Your task to perform on an android device: stop showing notifications on the lock screen Image 0: 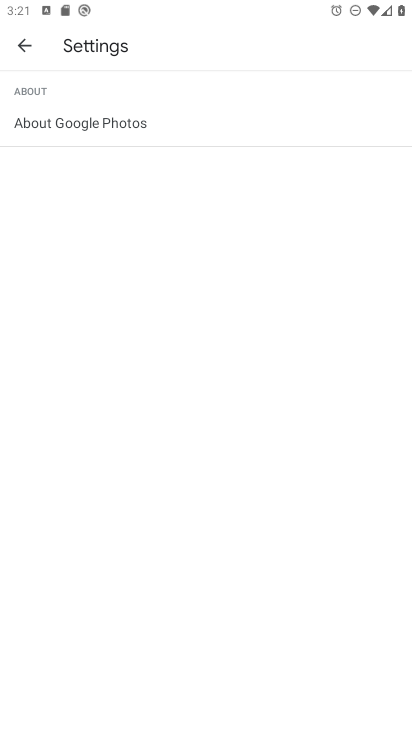
Step 0: press home button
Your task to perform on an android device: stop showing notifications on the lock screen Image 1: 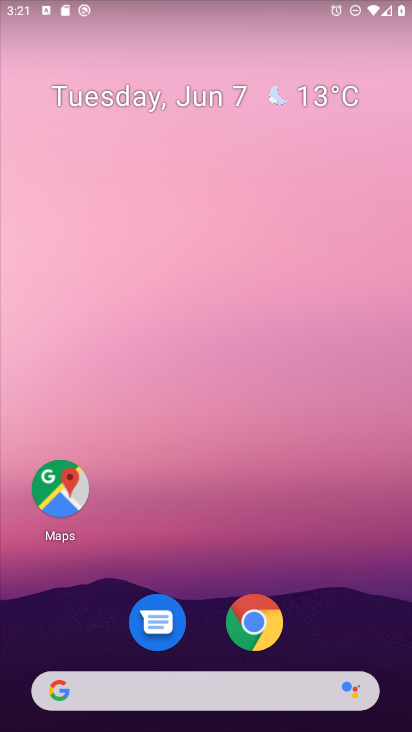
Step 1: drag from (289, 505) to (208, 41)
Your task to perform on an android device: stop showing notifications on the lock screen Image 2: 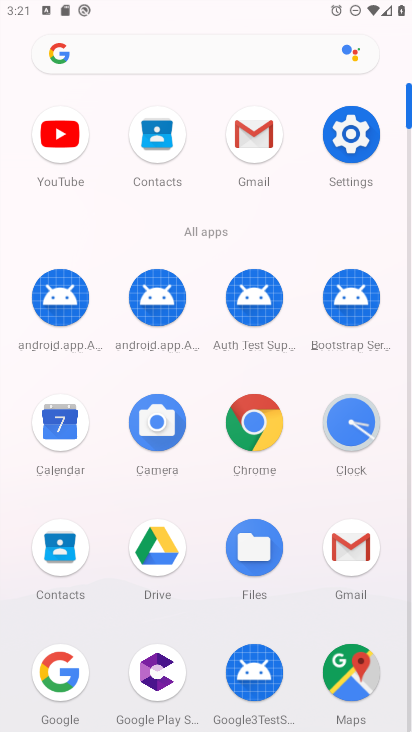
Step 2: click (345, 147)
Your task to perform on an android device: stop showing notifications on the lock screen Image 3: 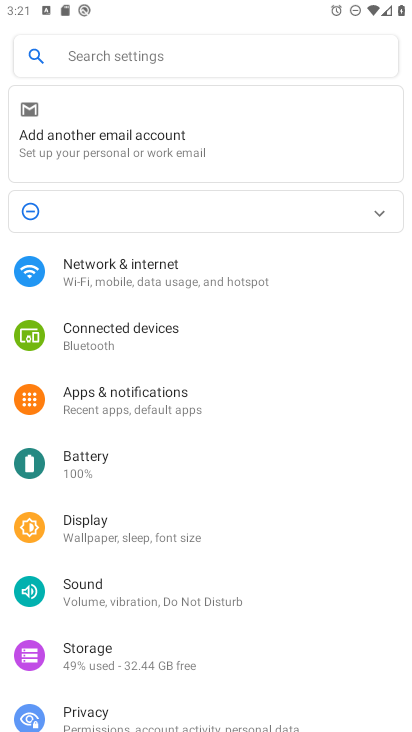
Step 3: click (137, 408)
Your task to perform on an android device: stop showing notifications on the lock screen Image 4: 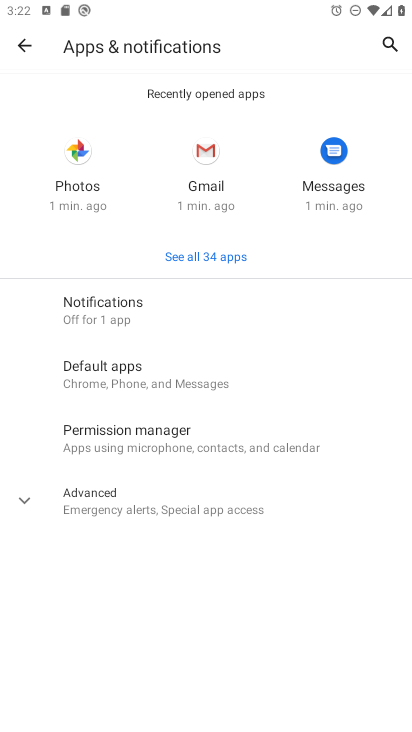
Step 4: click (154, 310)
Your task to perform on an android device: stop showing notifications on the lock screen Image 5: 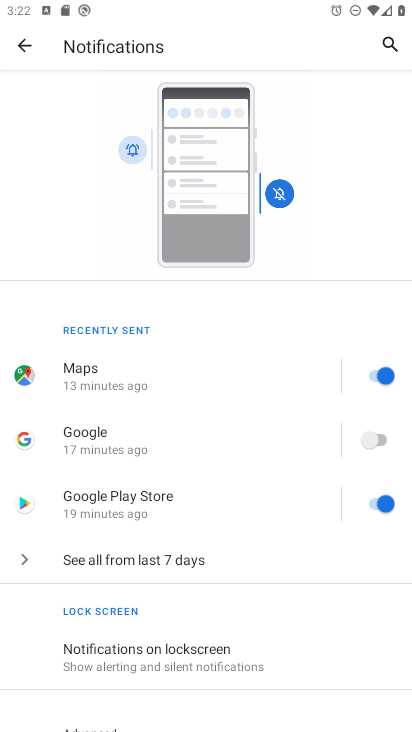
Step 5: click (223, 649)
Your task to perform on an android device: stop showing notifications on the lock screen Image 6: 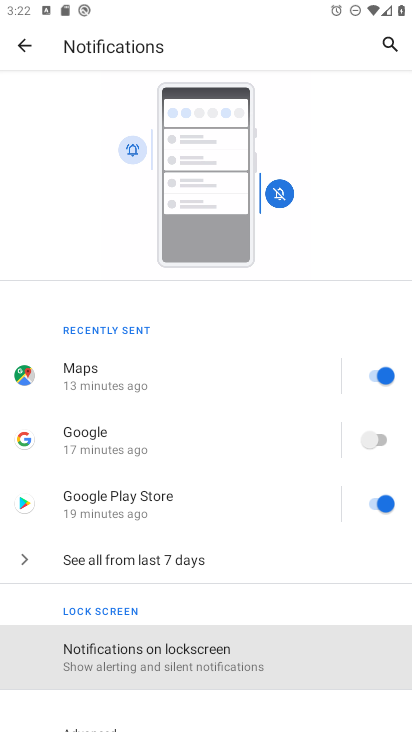
Step 6: click (235, 655)
Your task to perform on an android device: stop showing notifications on the lock screen Image 7: 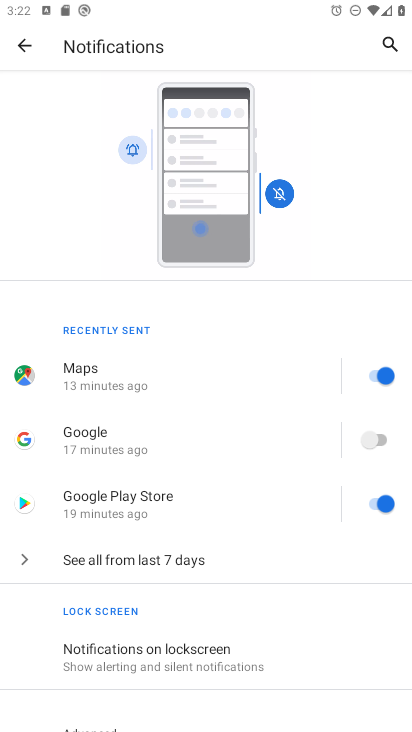
Step 7: click (274, 412)
Your task to perform on an android device: stop showing notifications on the lock screen Image 8: 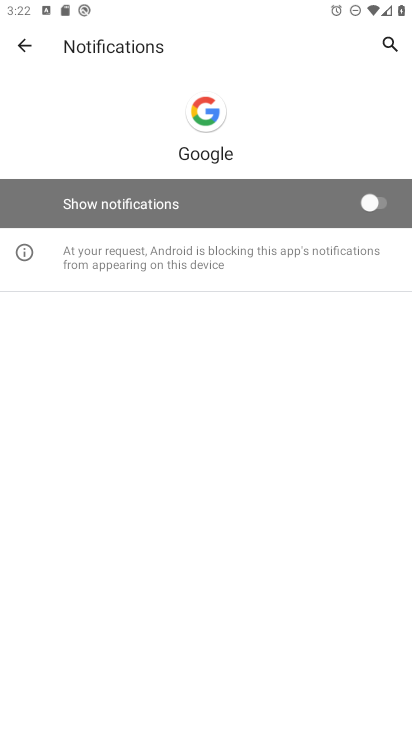
Step 8: click (26, 37)
Your task to perform on an android device: stop showing notifications on the lock screen Image 9: 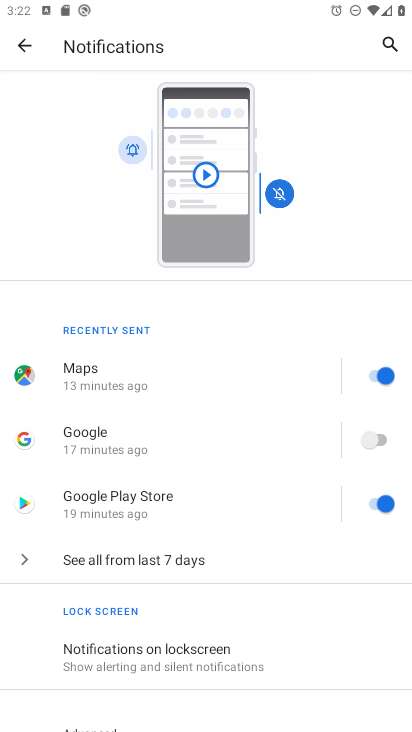
Step 9: click (168, 655)
Your task to perform on an android device: stop showing notifications on the lock screen Image 10: 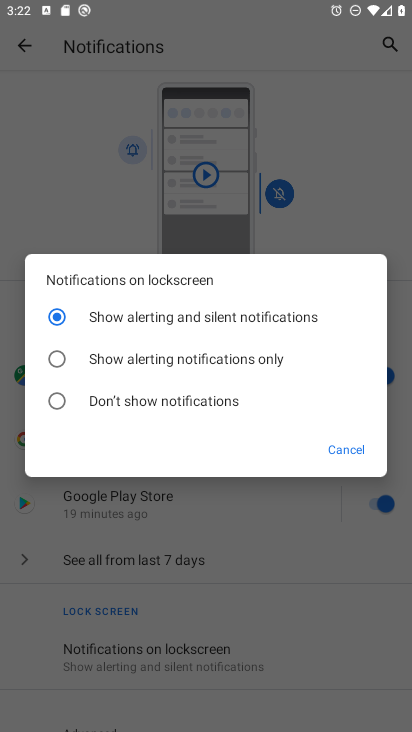
Step 10: click (56, 396)
Your task to perform on an android device: stop showing notifications on the lock screen Image 11: 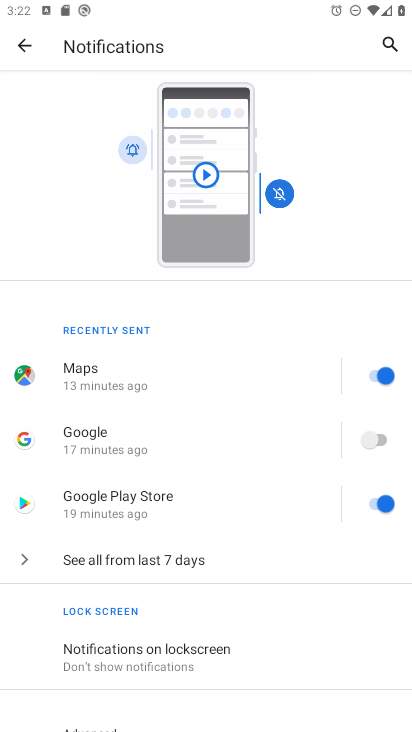
Step 11: task complete